Your task to perform on an android device: Add logitech g910 to the cart on bestbuy, then select checkout. Image 0: 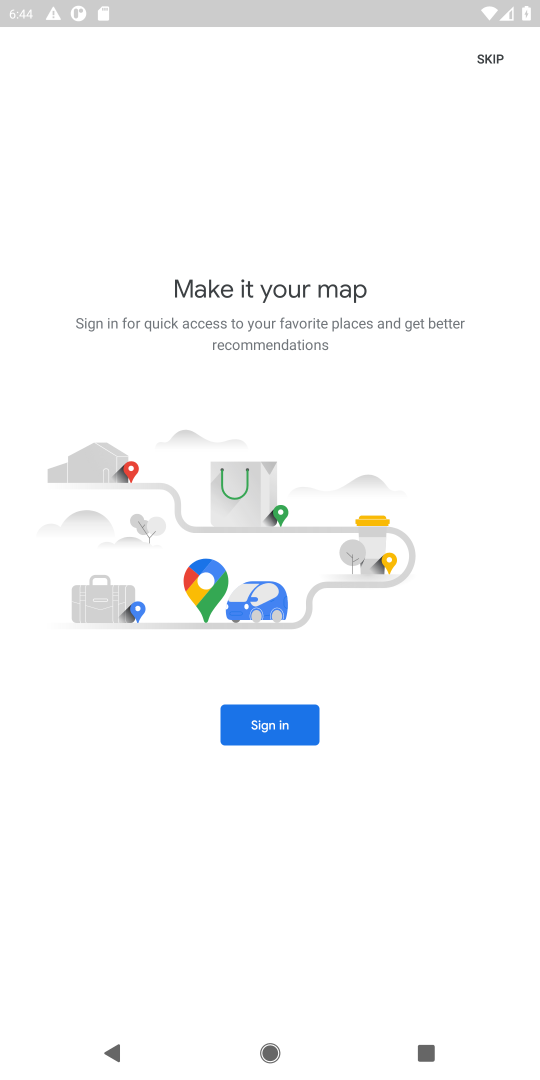
Step 0: press home button
Your task to perform on an android device: Add logitech g910 to the cart on bestbuy, then select checkout. Image 1: 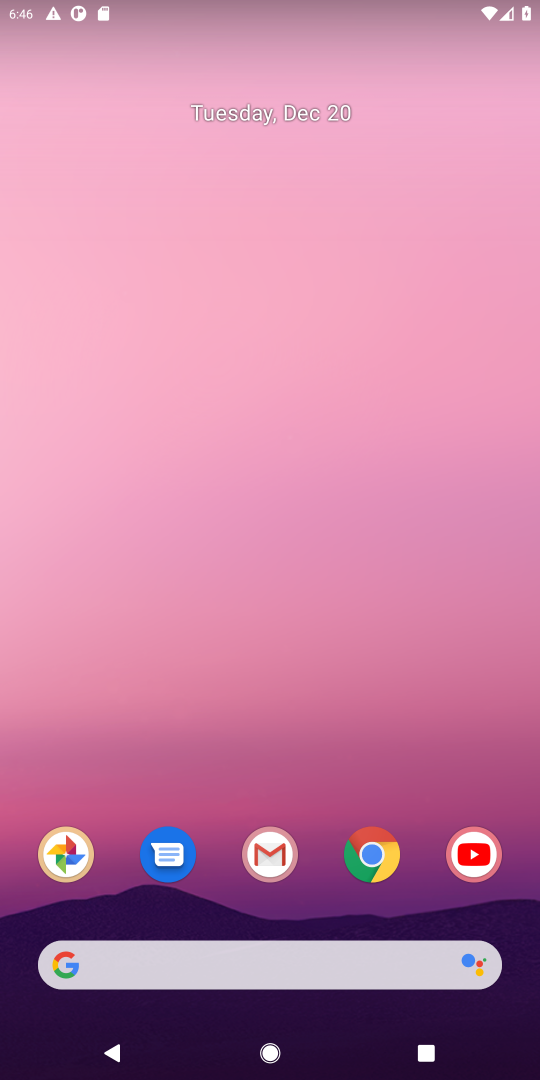
Step 1: click (374, 854)
Your task to perform on an android device: Add logitech g910 to the cart on bestbuy, then select checkout. Image 2: 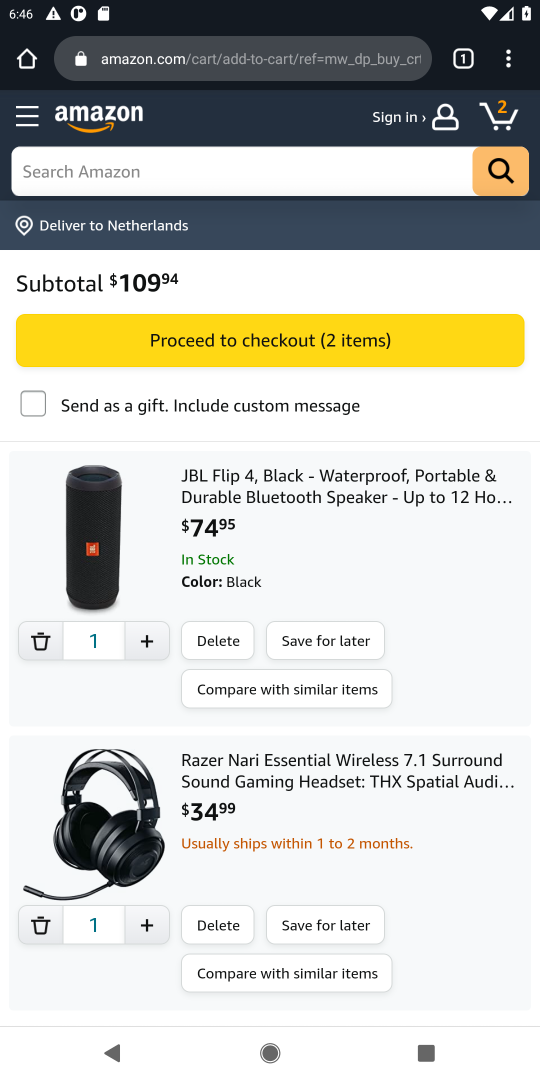
Step 2: click (174, 69)
Your task to perform on an android device: Add logitech g910 to the cart on bestbuy, then select checkout. Image 3: 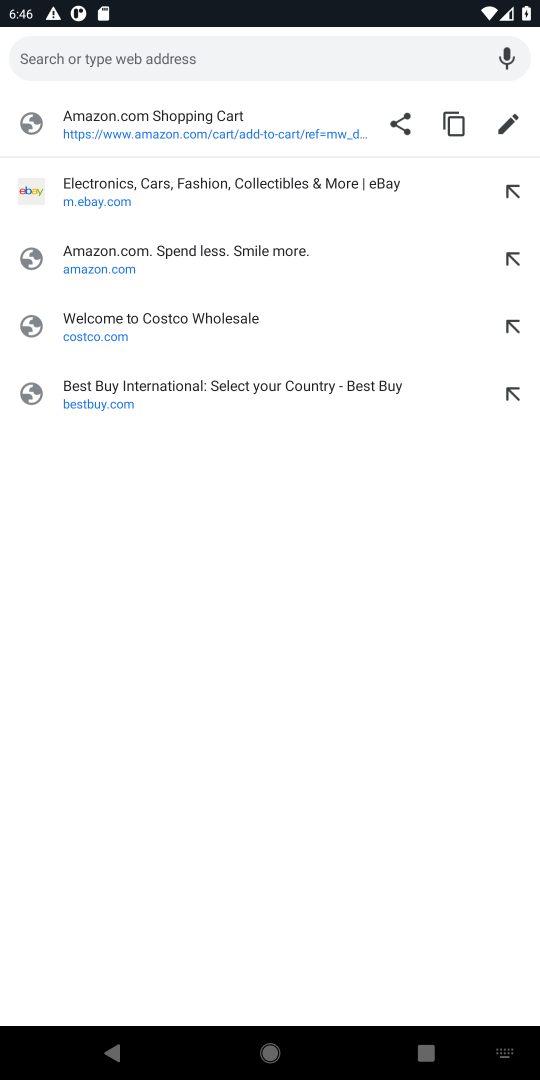
Step 3: click (89, 398)
Your task to perform on an android device: Add logitech g910 to the cart on bestbuy, then select checkout. Image 4: 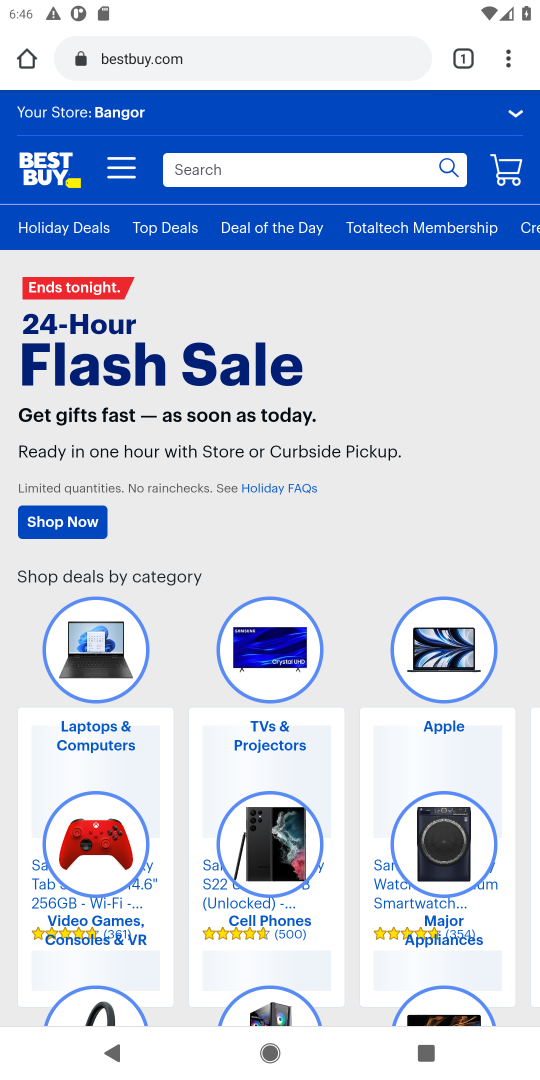
Step 4: click (181, 179)
Your task to perform on an android device: Add logitech g910 to the cart on bestbuy, then select checkout. Image 5: 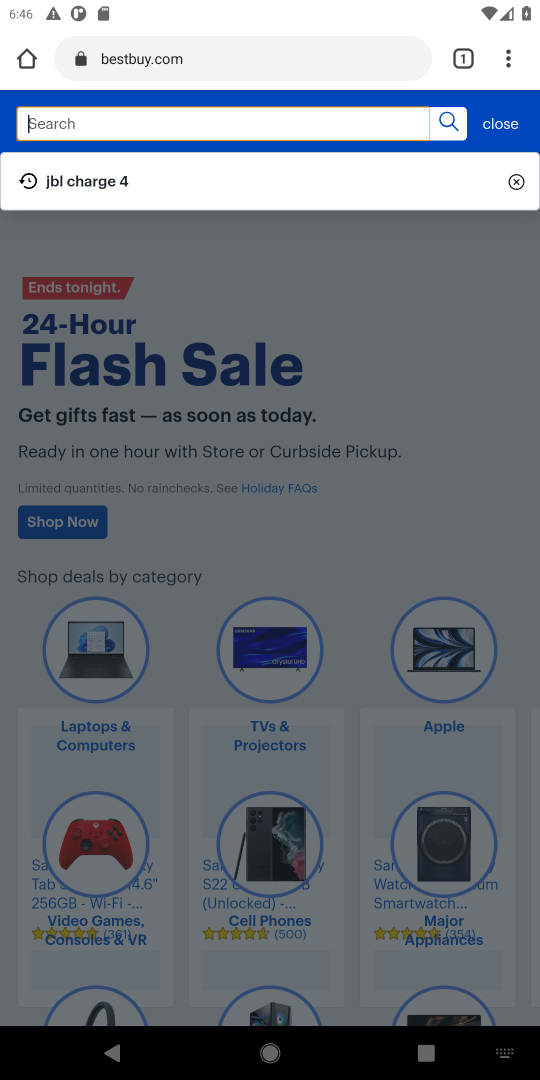
Step 5: type "logitech g910"
Your task to perform on an android device: Add logitech g910 to the cart on bestbuy, then select checkout. Image 6: 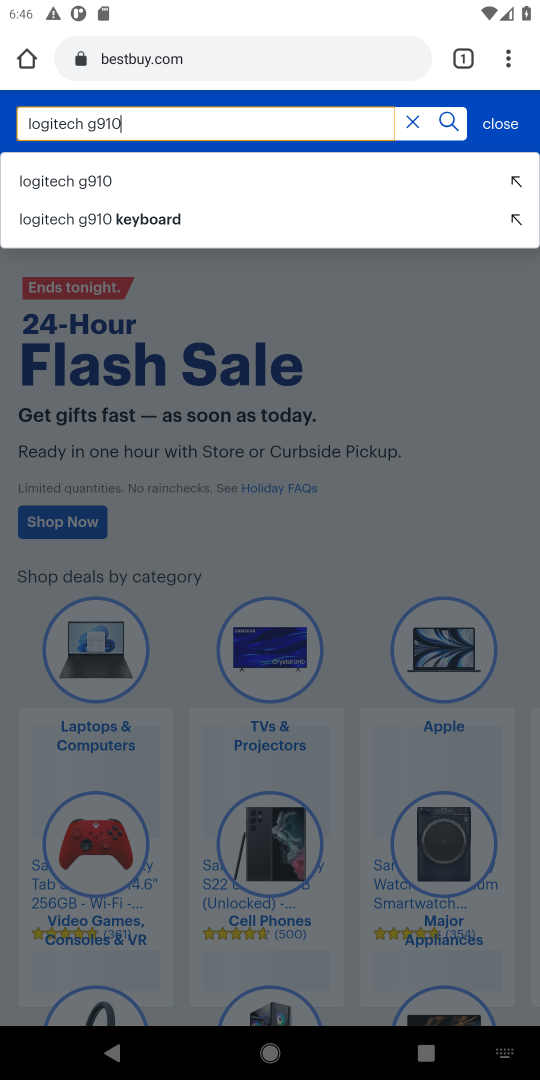
Step 6: click (66, 183)
Your task to perform on an android device: Add logitech g910 to the cart on bestbuy, then select checkout. Image 7: 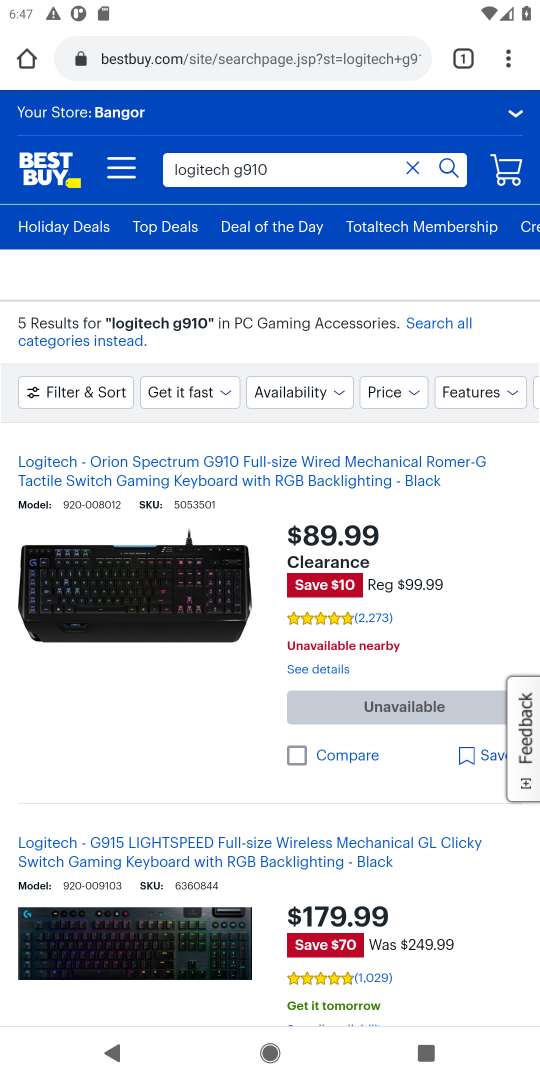
Step 7: task complete